Your task to perform on an android device: check battery use Image 0: 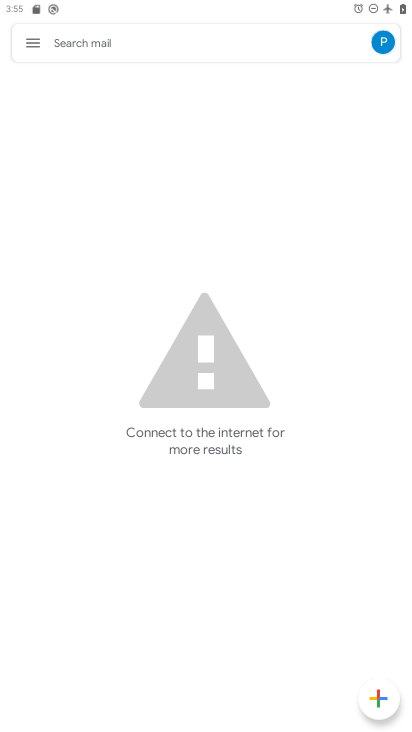
Step 0: press home button
Your task to perform on an android device: check battery use Image 1: 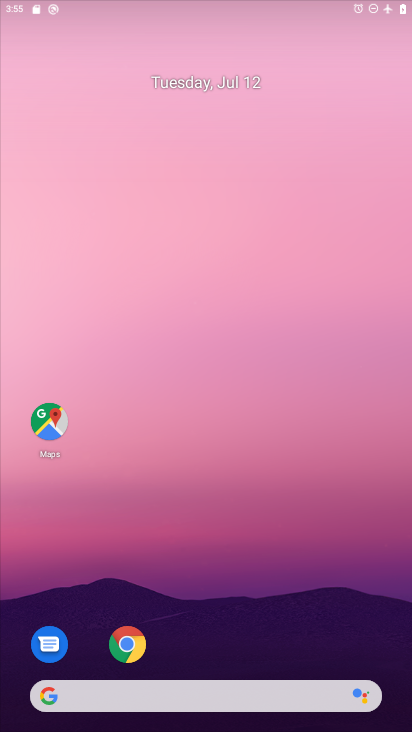
Step 1: drag from (263, 595) to (204, 50)
Your task to perform on an android device: check battery use Image 2: 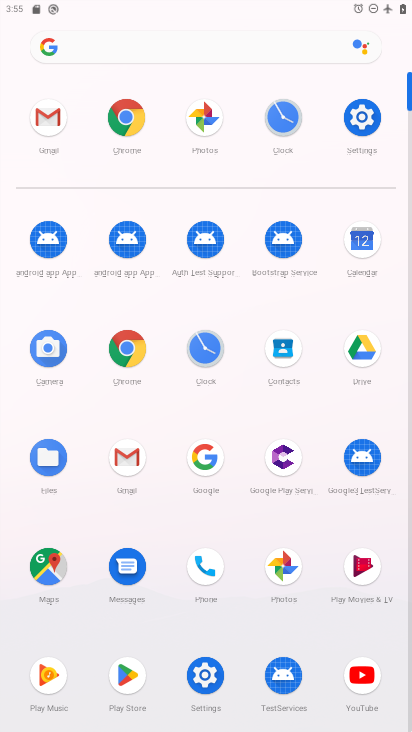
Step 2: click (375, 105)
Your task to perform on an android device: check battery use Image 3: 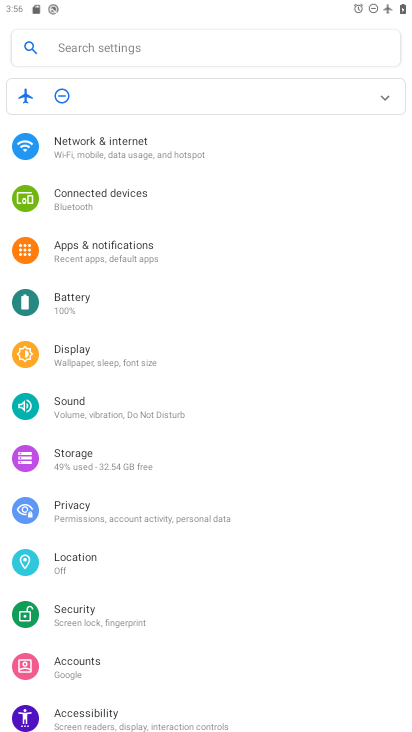
Step 3: click (85, 300)
Your task to perform on an android device: check battery use Image 4: 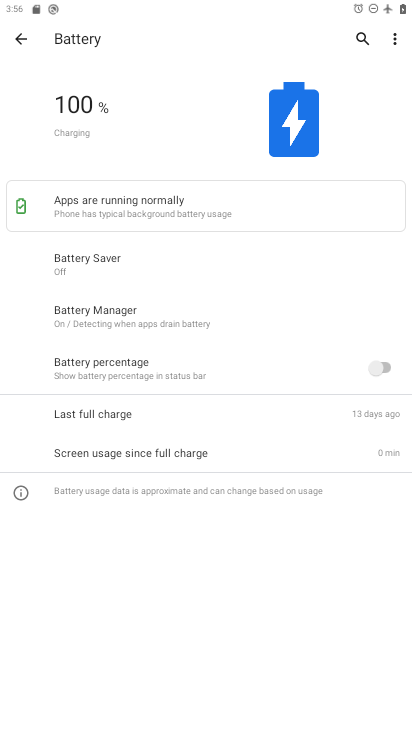
Step 4: click (400, 42)
Your task to perform on an android device: check battery use Image 5: 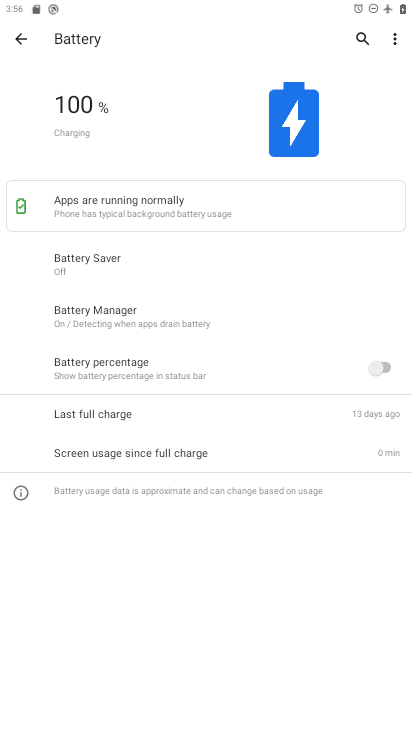
Step 5: click (367, 132)
Your task to perform on an android device: check battery use Image 6: 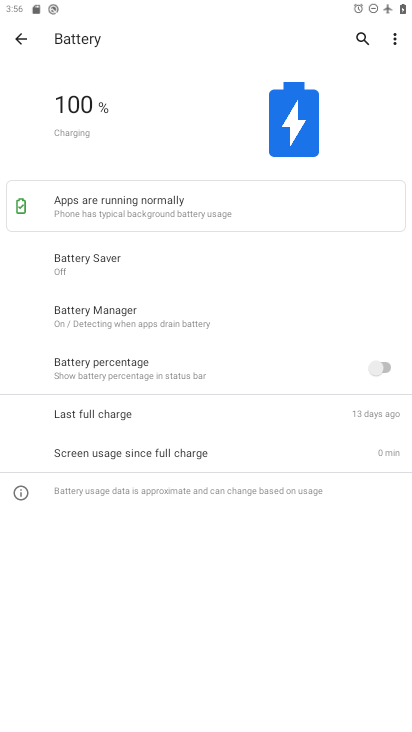
Step 6: click (401, 37)
Your task to perform on an android device: check battery use Image 7: 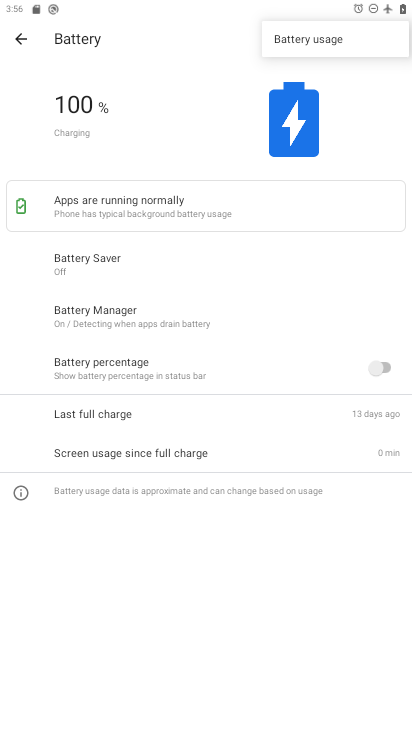
Step 7: click (348, 32)
Your task to perform on an android device: check battery use Image 8: 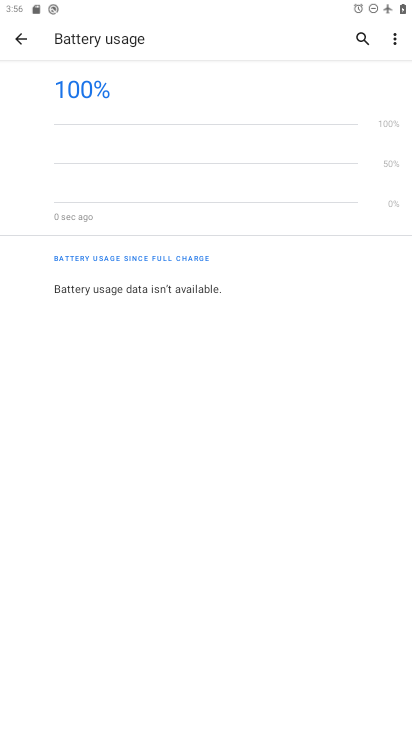
Step 8: task complete